Your task to perform on an android device: change alarm snooze length Image 0: 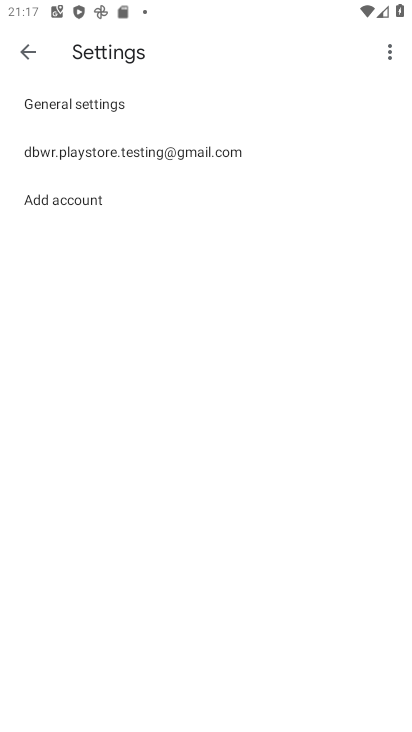
Step 0: press home button
Your task to perform on an android device: change alarm snooze length Image 1: 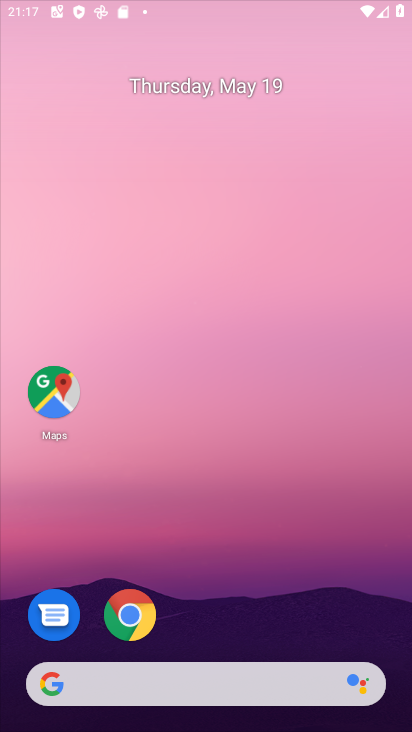
Step 1: drag from (211, 602) to (260, 70)
Your task to perform on an android device: change alarm snooze length Image 2: 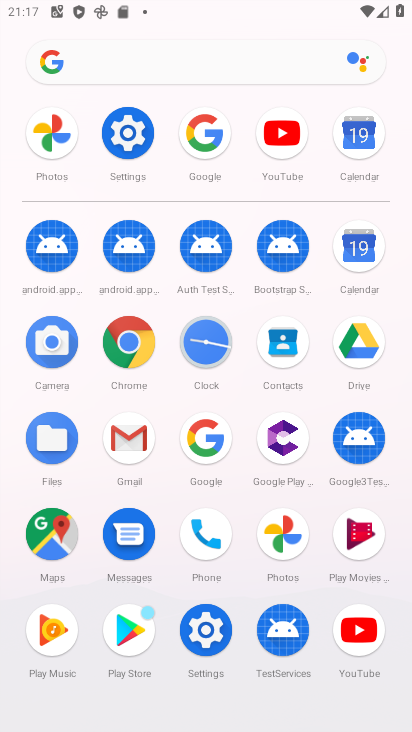
Step 2: click (207, 350)
Your task to perform on an android device: change alarm snooze length Image 3: 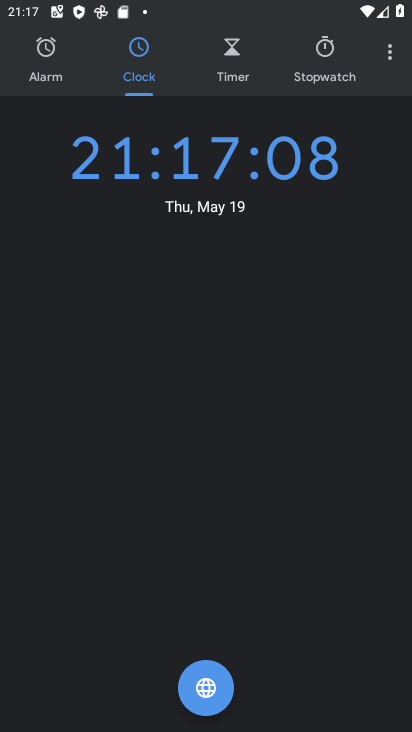
Step 3: click (383, 53)
Your task to perform on an android device: change alarm snooze length Image 4: 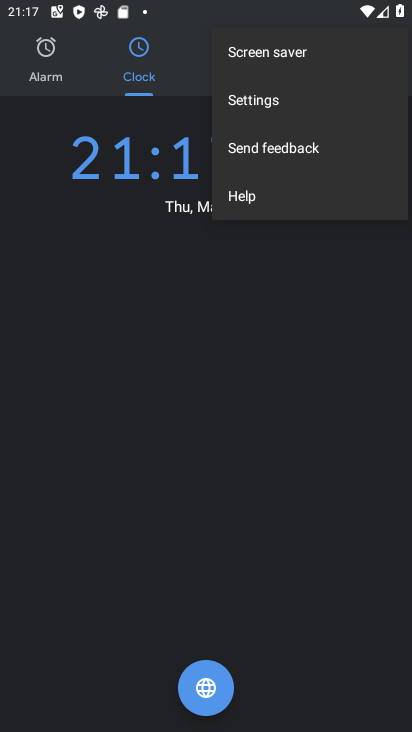
Step 4: click (268, 100)
Your task to perform on an android device: change alarm snooze length Image 5: 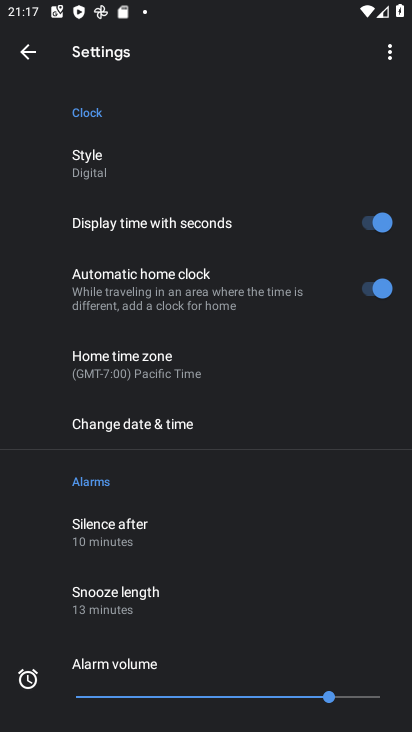
Step 5: drag from (228, 515) to (218, 184)
Your task to perform on an android device: change alarm snooze length Image 6: 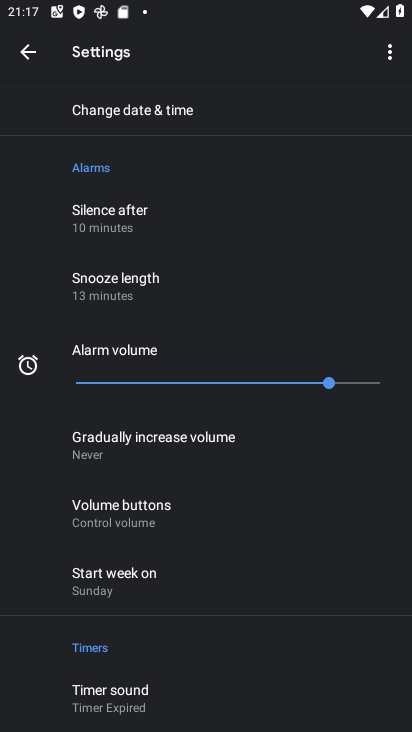
Step 6: click (132, 282)
Your task to perform on an android device: change alarm snooze length Image 7: 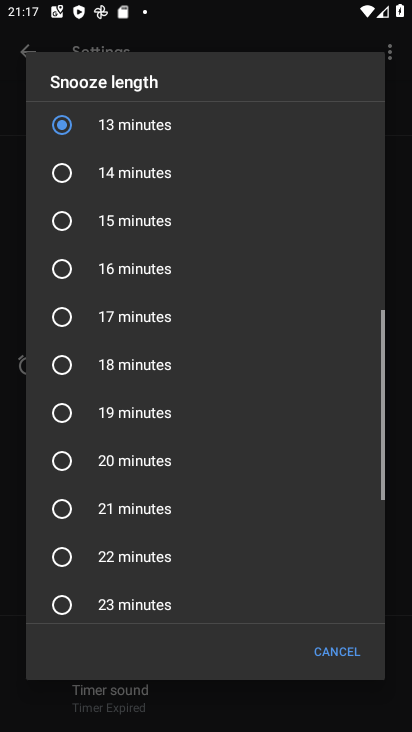
Step 7: click (59, 267)
Your task to perform on an android device: change alarm snooze length Image 8: 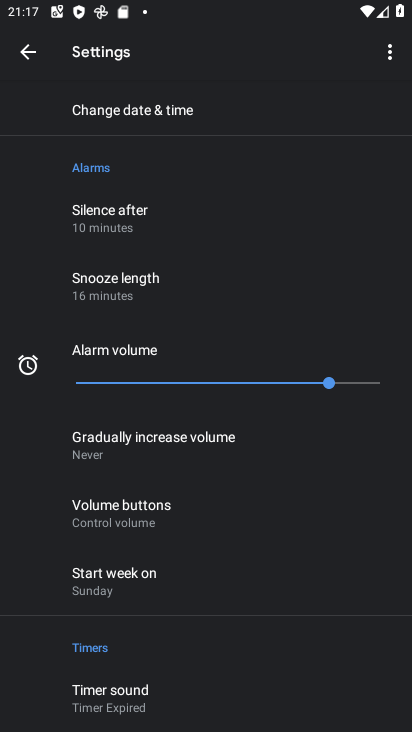
Step 8: task complete